Your task to perform on an android device: turn off data saver in the chrome app Image 0: 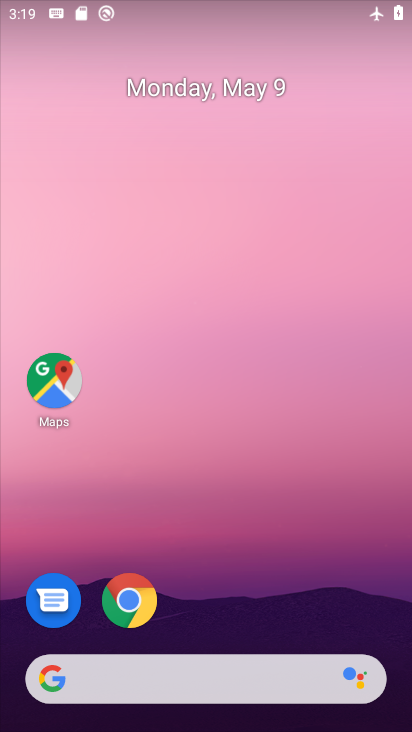
Step 0: click (136, 602)
Your task to perform on an android device: turn off data saver in the chrome app Image 1: 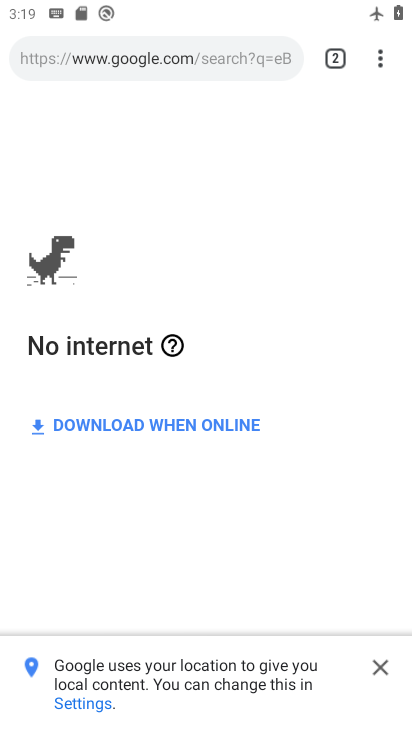
Step 1: click (381, 57)
Your task to perform on an android device: turn off data saver in the chrome app Image 2: 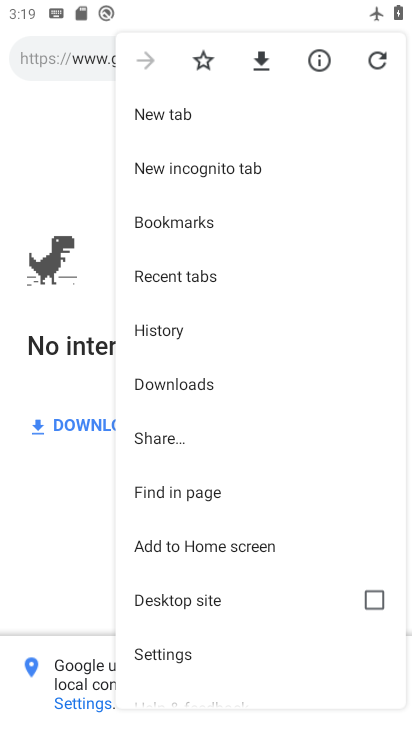
Step 2: click (160, 645)
Your task to perform on an android device: turn off data saver in the chrome app Image 3: 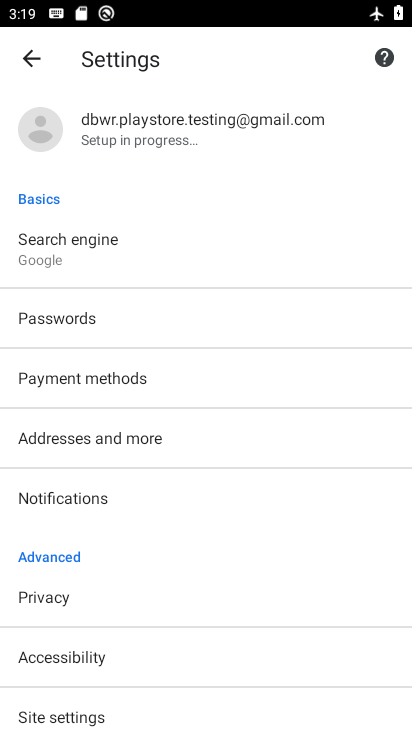
Step 3: drag from (76, 669) to (176, 320)
Your task to perform on an android device: turn off data saver in the chrome app Image 4: 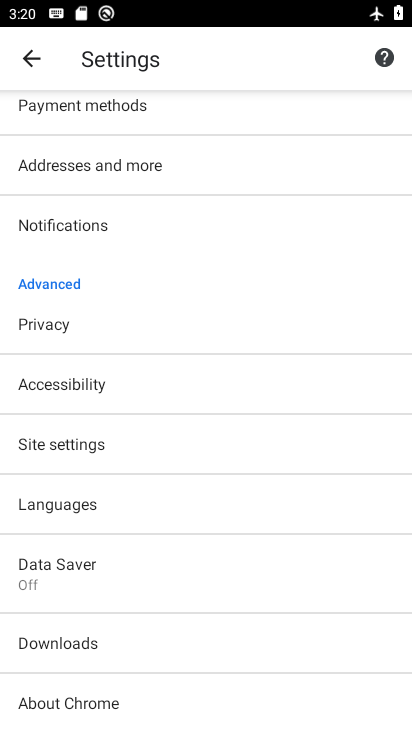
Step 4: click (116, 576)
Your task to perform on an android device: turn off data saver in the chrome app Image 5: 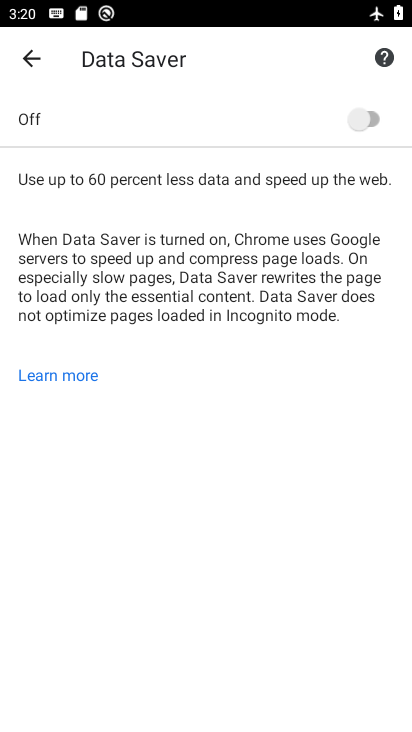
Step 5: task complete